Your task to perform on an android device: turn on showing notifications on the lock screen Image 0: 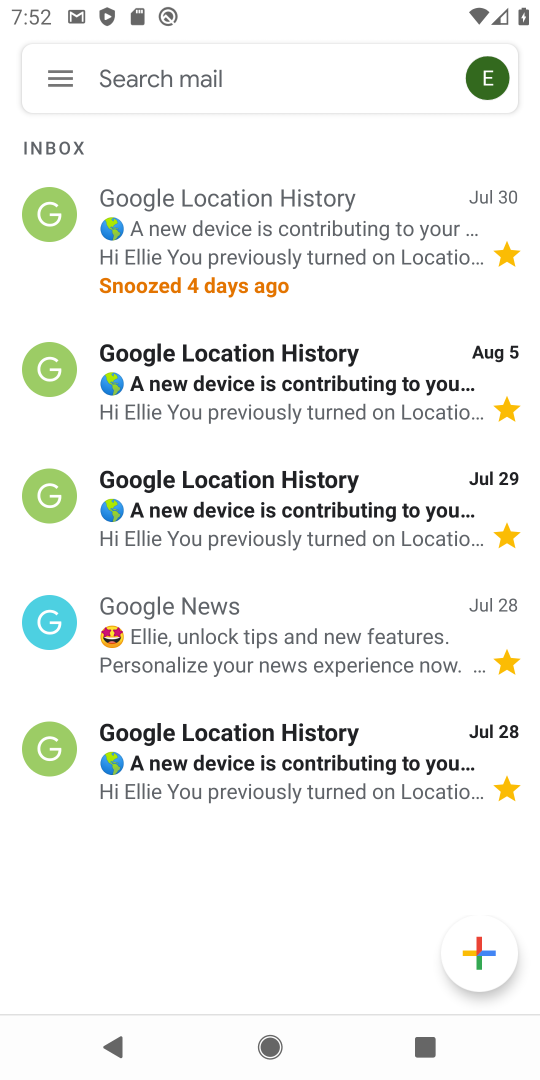
Step 0: press home button
Your task to perform on an android device: turn on showing notifications on the lock screen Image 1: 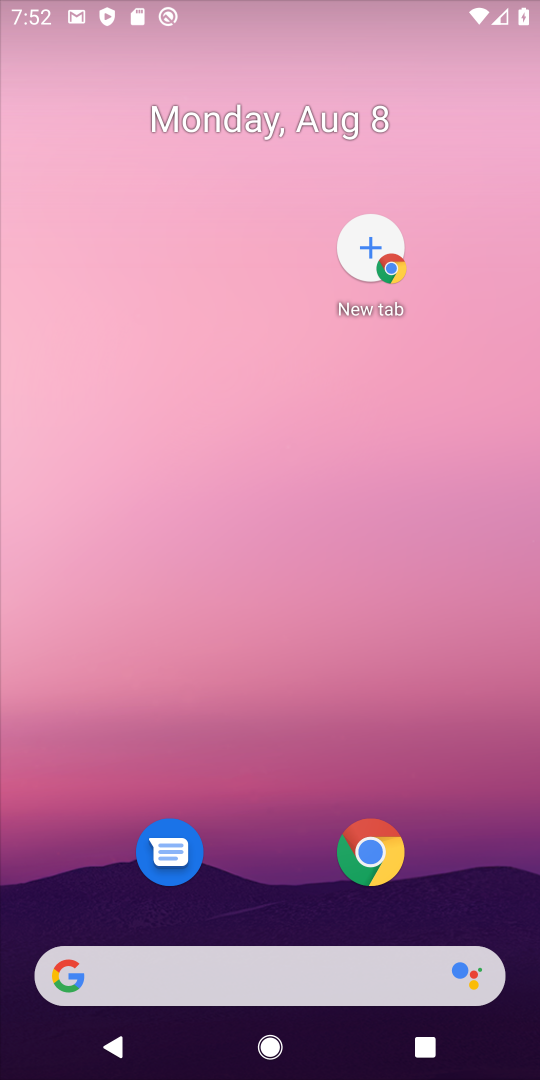
Step 1: drag from (190, 908) to (206, 213)
Your task to perform on an android device: turn on showing notifications on the lock screen Image 2: 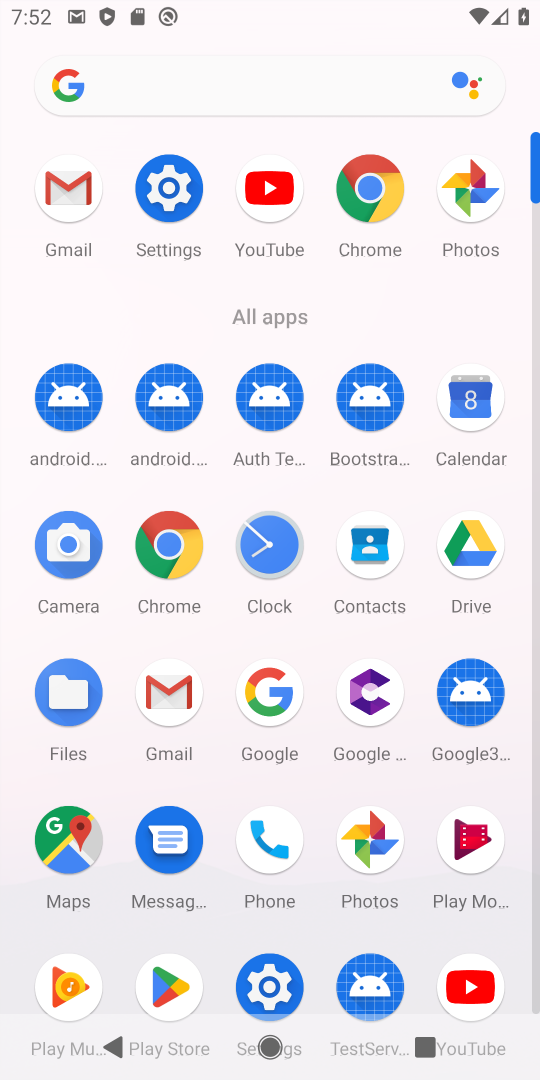
Step 2: click (185, 190)
Your task to perform on an android device: turn on showing notifications on the lock screen Image 3: 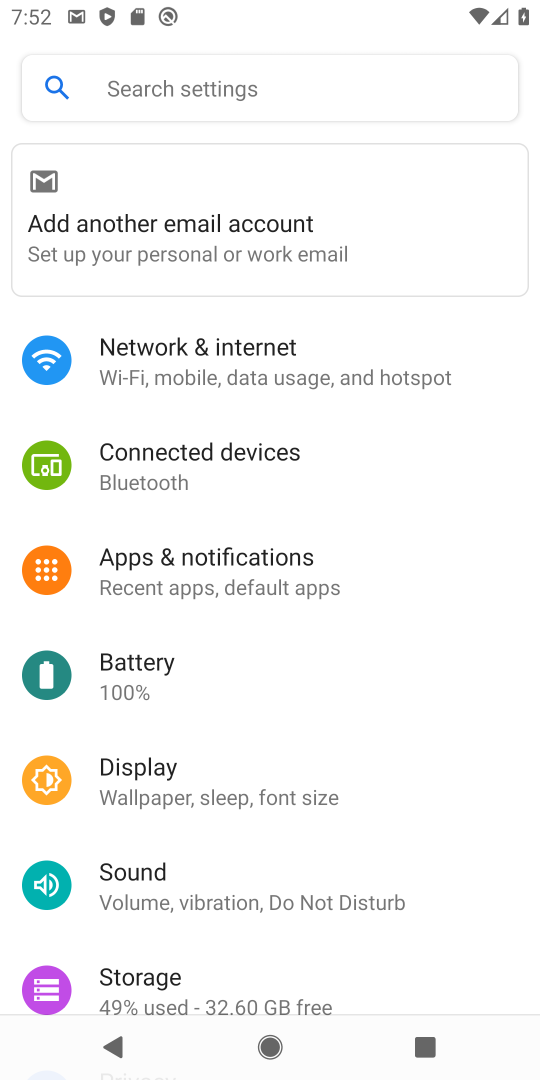
Step 3: drag from (149, 969) to (193, 364)
Your task to perform on an android device: turn on showing notifications on the lock screen Image 4: 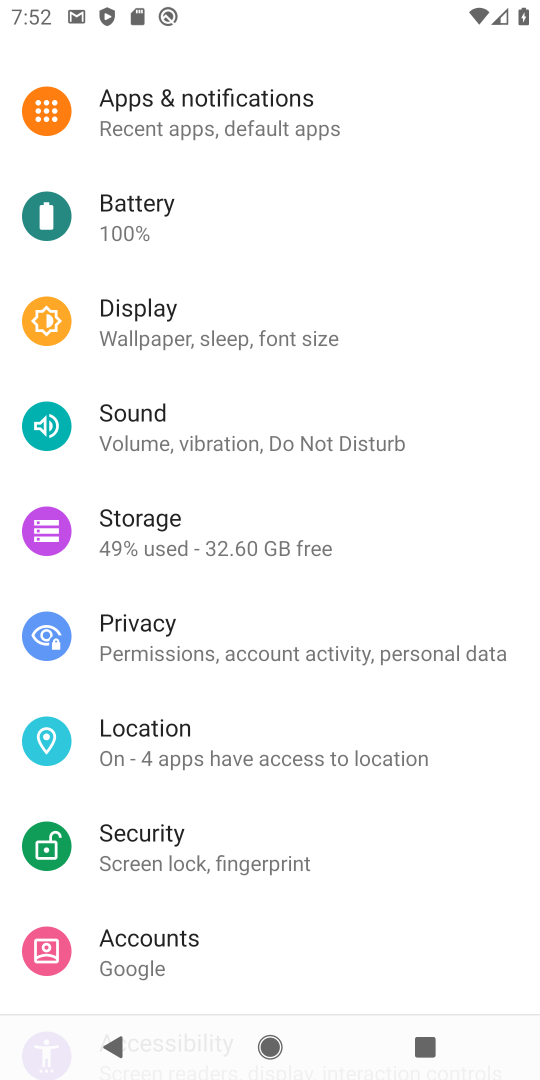
Step 4: click (132, 652)
Your task to perform on an android device: turn on showing notifications on the lock screen Image 5: 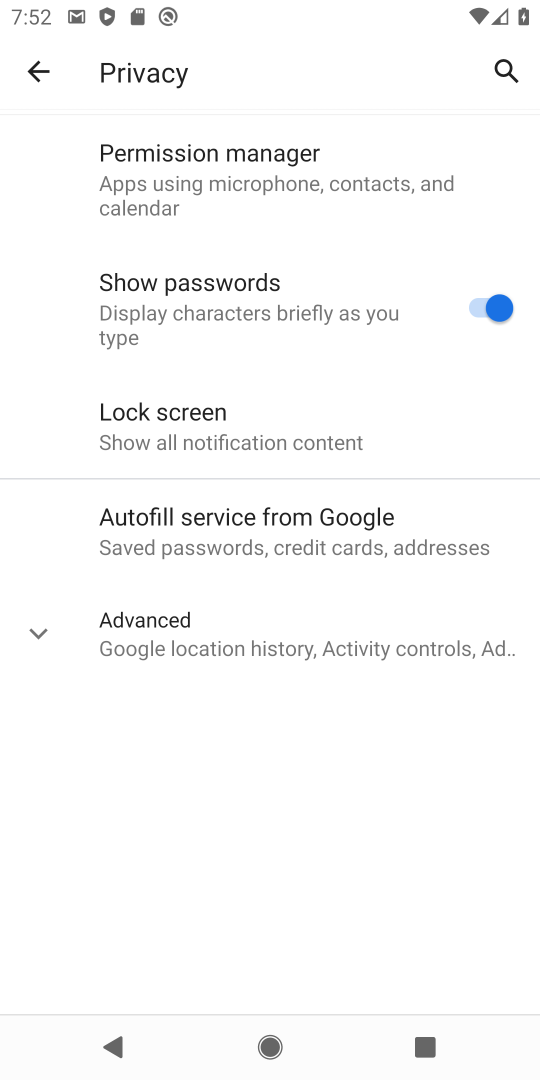
Step 5: click (133, 616)
Your task to perform on an android device: turn on showing notifications on the lock screen Image 6: 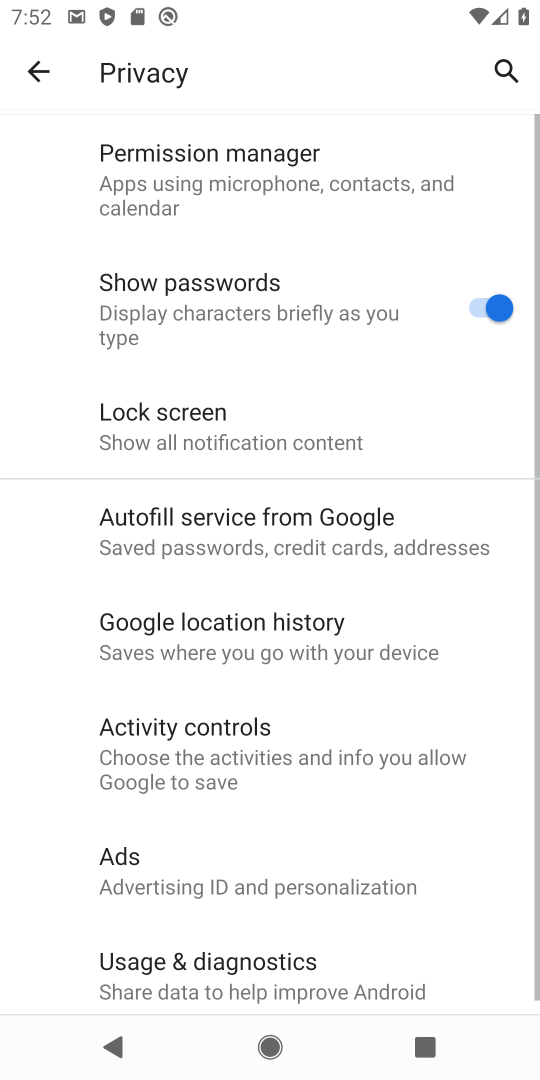
Step 6: click (124, 440)
Your task to perform on an android device: turn on showing notifications on the lock screen Image 7: 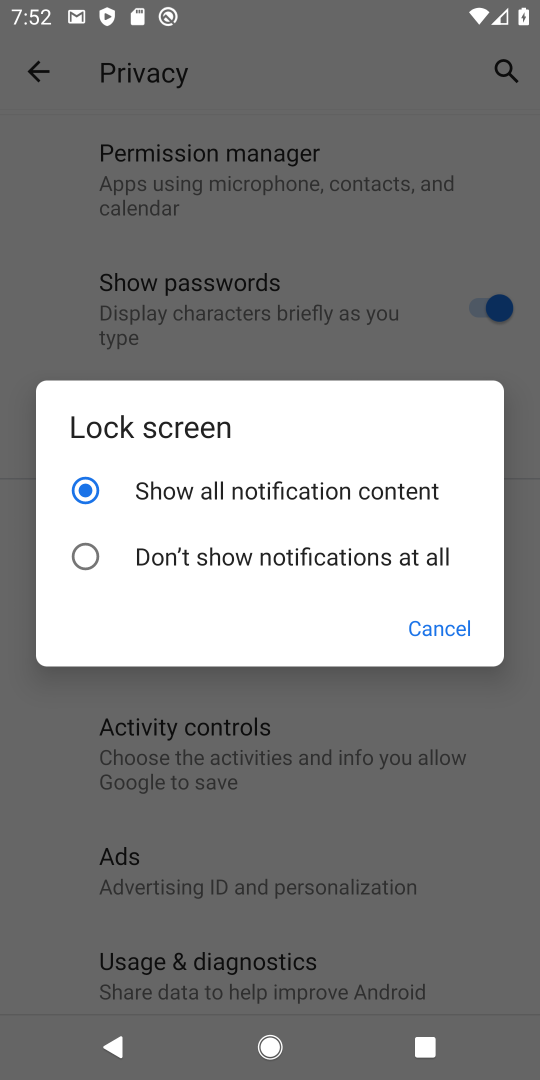
Step 7: task complete